Your task to perform on an android device: Open CNN.com Image 0: 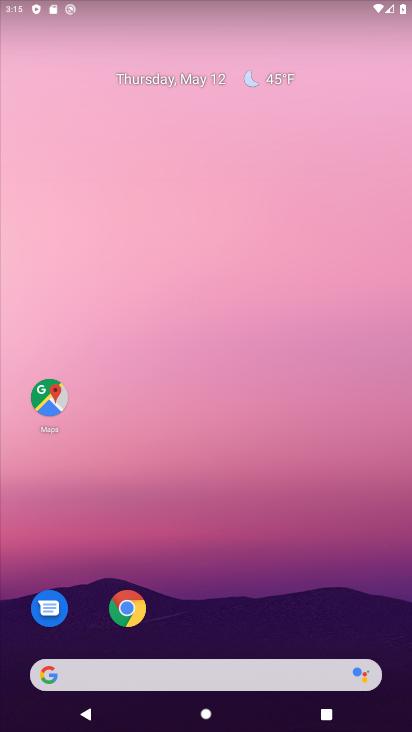
Step 0: click (255, 673)
Your task to perform on an android device: Open CNN.com Image 1: 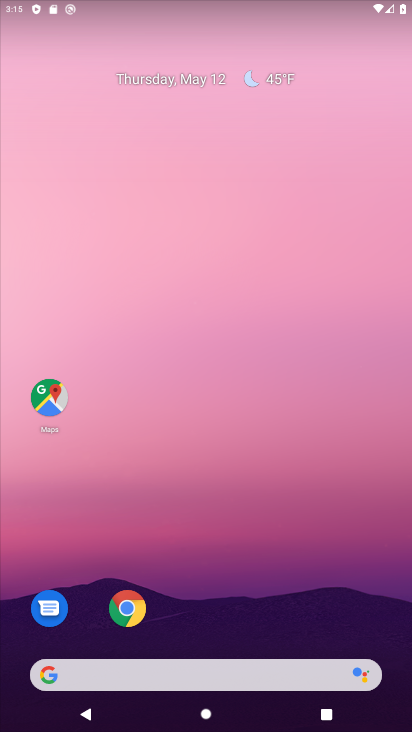
Step 1: type "cnn.com"
Your task to perform on an android device: Open CNN.com Image 2: 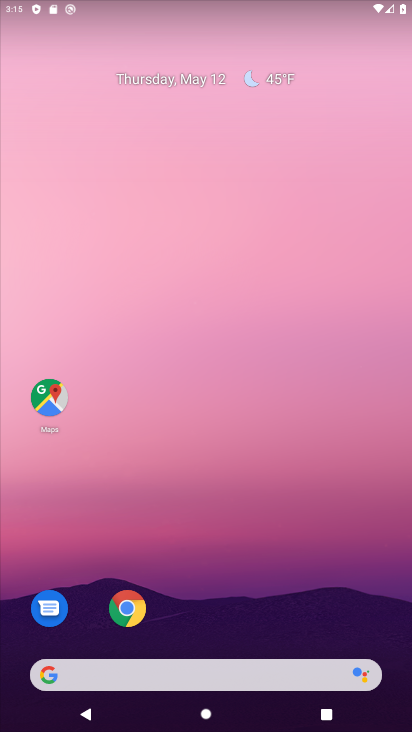
Step 2: click (128, 616)
Your task to perform on an android device: Open CNN.com Image 3: 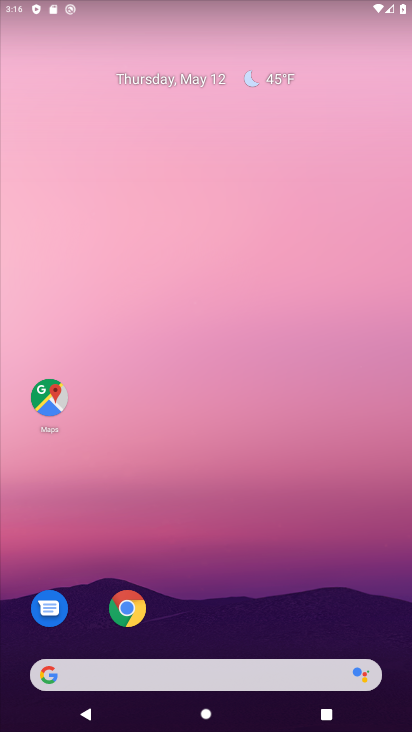
Step 3: click (130, 603)
Your task to perform on an android device: Open CNN.com Image 4: 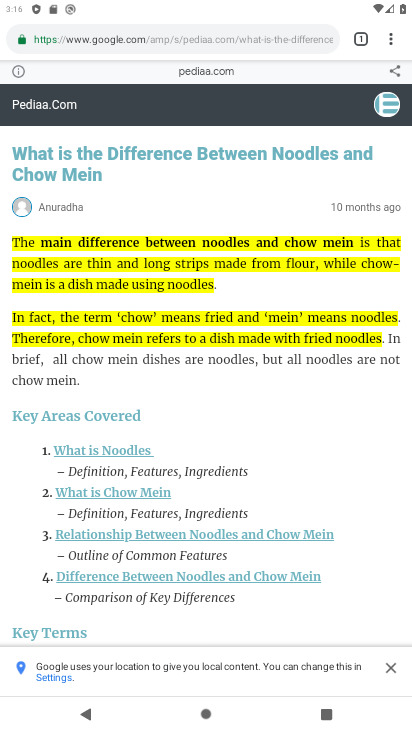
Step 4: click (304, 43)
Your task to perform on an android device: Open CNN.com Image 5: 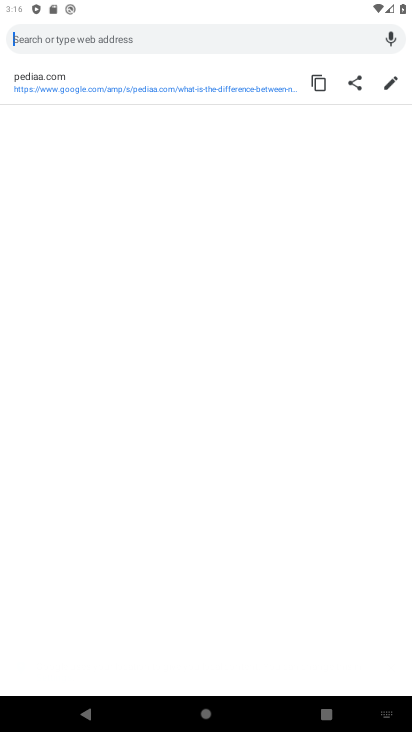
Step 5: type "cnn.com"
Your task to perform on an android device: Open CNN.com Image 6: 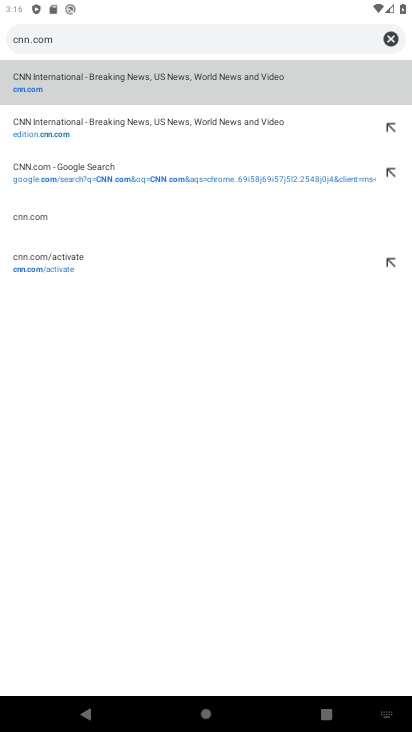
Step 6: click (240, 75)
Your task to perform on an android device: Open CNN.com Image 7: 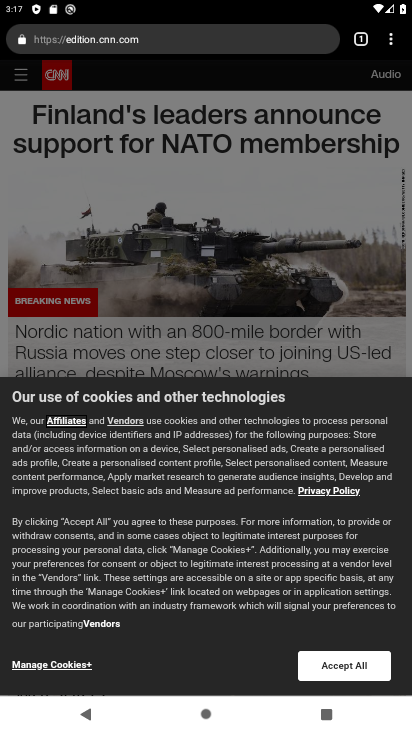
Step 7: task complete